Your task to perform on an android device: Search for pizza restaurants on Maps Image 0: 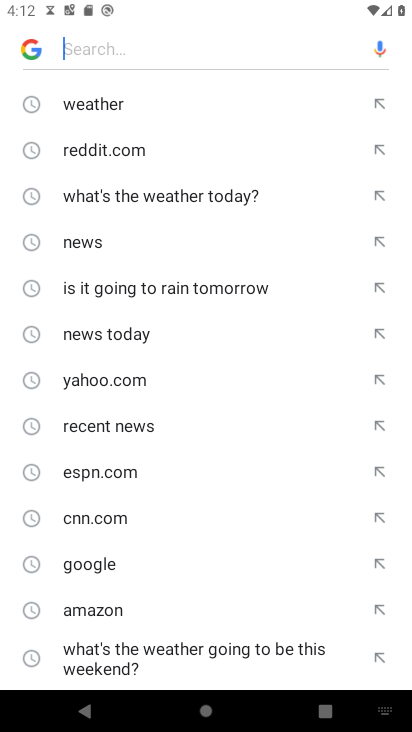
Step 0: press home button
Your task to perform on an android device: Search for pizza restaurants on Maps Image 1: 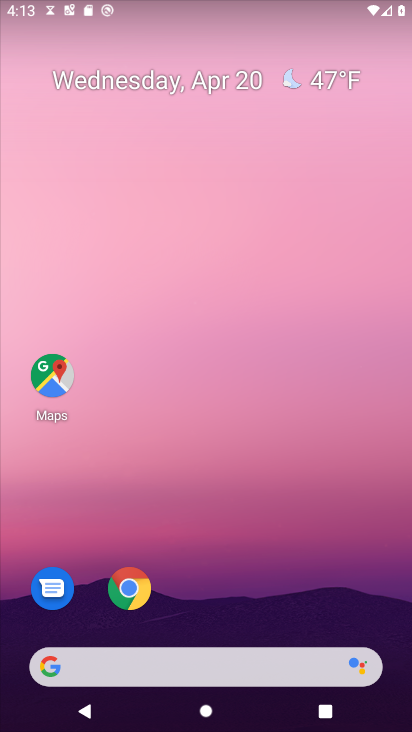
Step 1: click (38, 382)
Your task to perform on an android device: Search for pizza restaurants on Maps Image 2: 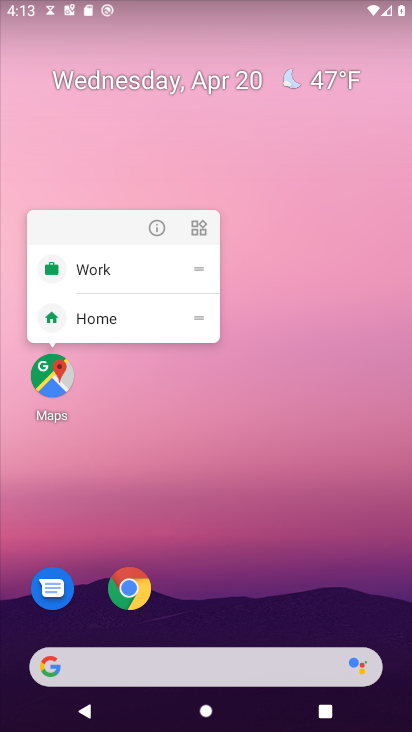
Step 2: click (43, 381)
Your task to perform on an android device: Search for pizza restaurants on Maps Image 3: 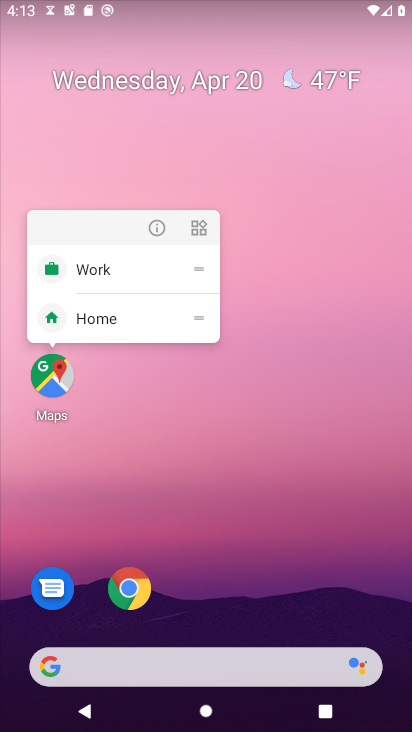
Step 3: click (43, 381)
Your task to perform on an android device: Search for pizza restaurants on Maps Image 4: 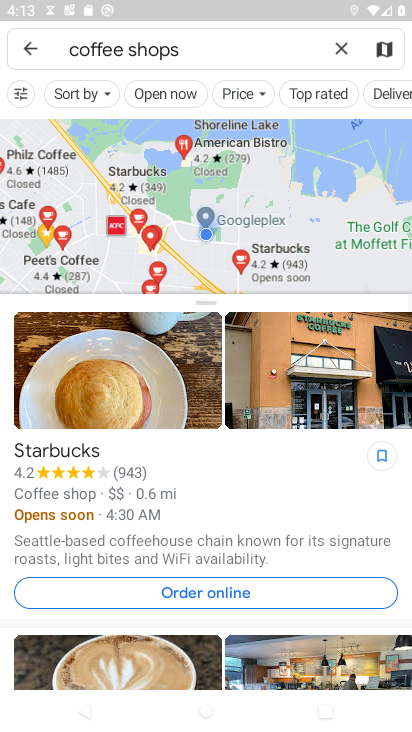
Step 4: click (331, 49)
Your task to perform on an android device: Search for pizza restaurants on Maps Image 5: 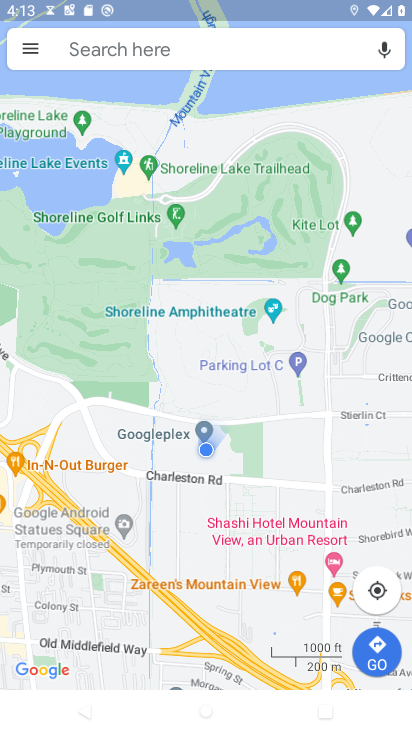
Step 5: click (162, 48)
Your task to perform on an android device: Search for pizza restaurants on Maps Image 6: 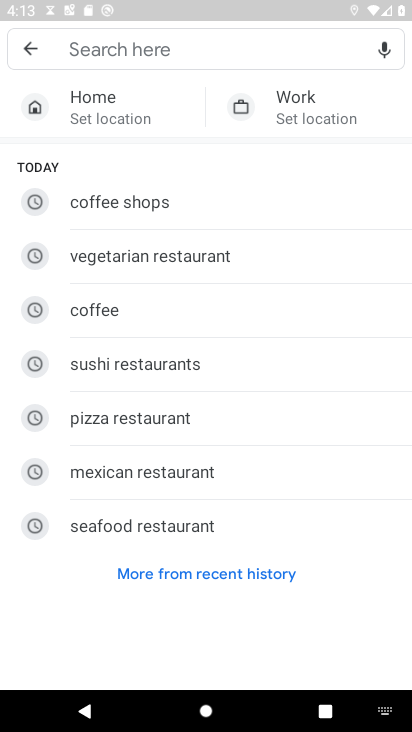
Step 6: type "pizza restaurants"
Your task to perform on an android device: Search for pizza restaurants on Maps Image 7: 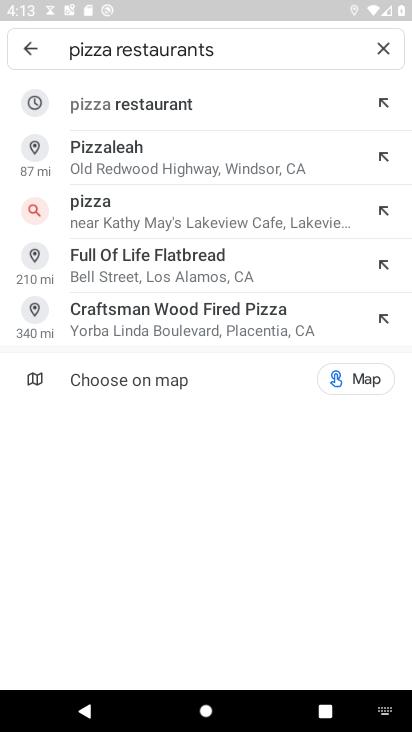
Step 7: click (115, 103)
Your task to perform on an android device: Search for pizza restaurants on Maps Image 8: 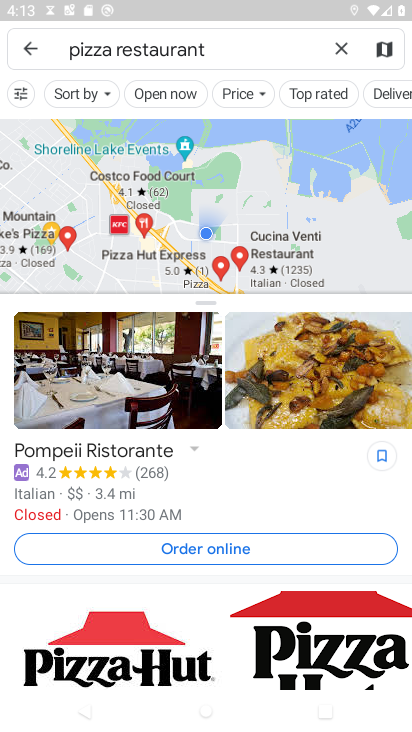
Step 8: task complete